Your task to perform on an android device: Open maps Image 0: 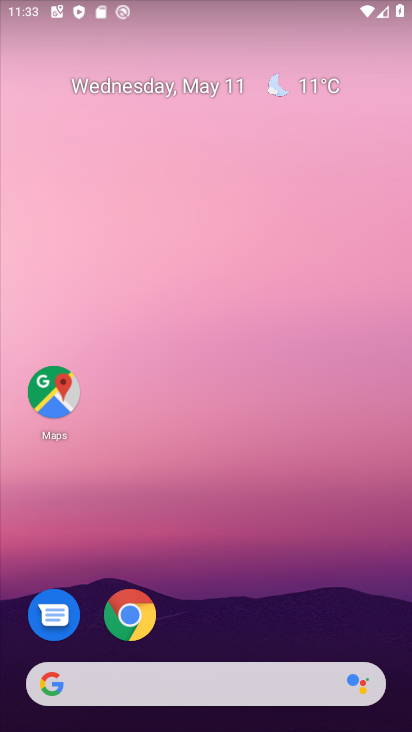
Step 0: click (62, 396)
Your task to perform on an android device: Open maps Image 1: 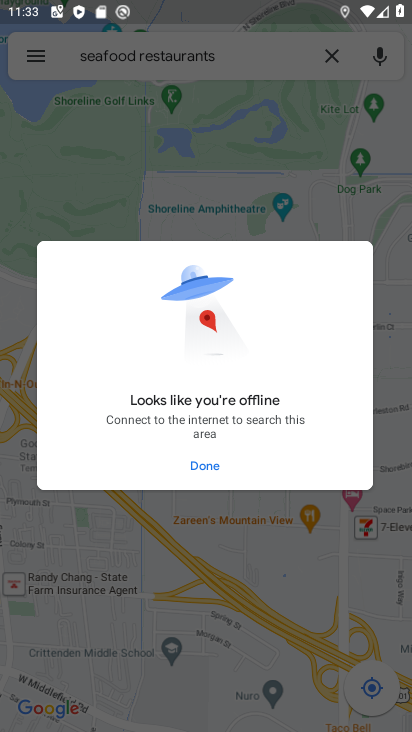
Step 1: task complete